Your task to perform on an android device: Open Amazon Image 0: 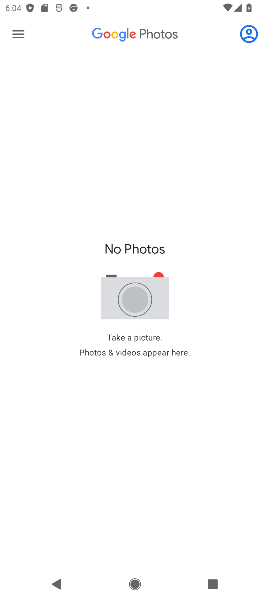
Step 0: press home button
Your task to perform on an android device: Open Amazon Image 1: 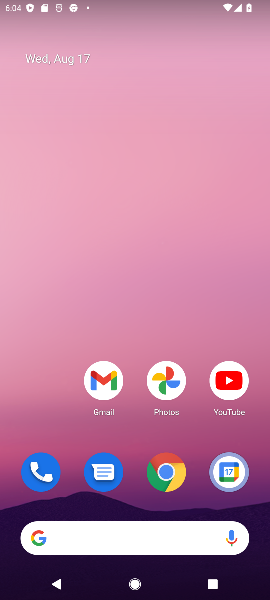
Step 1: click (153, 471)
Your task to perform on an android device: Open Amazon Image 2: 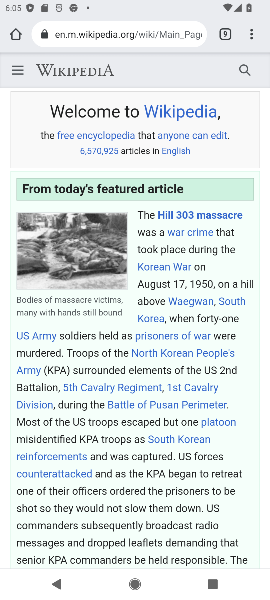
Step 2: click (218, 31)
Your task to perform on an android device: Open Amazon Image 3: 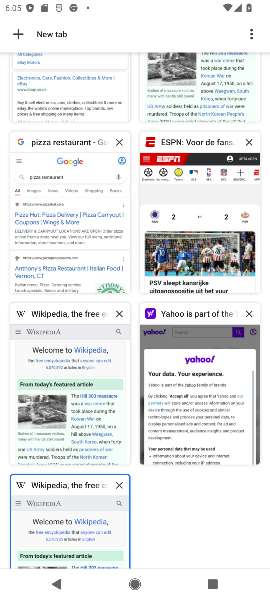
Step 3: click (16, 34)
Your task to perform on an android device: Open Amazon Image 4: 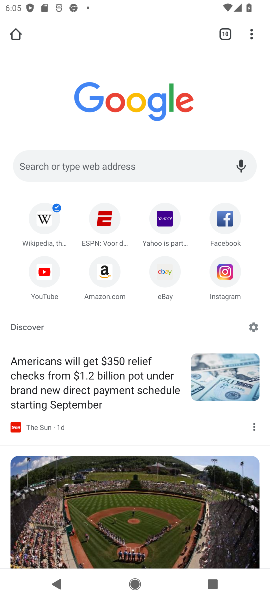
Step 4: click (98, 266)
Your task to perform on an android device: Open Amazon Image 5: 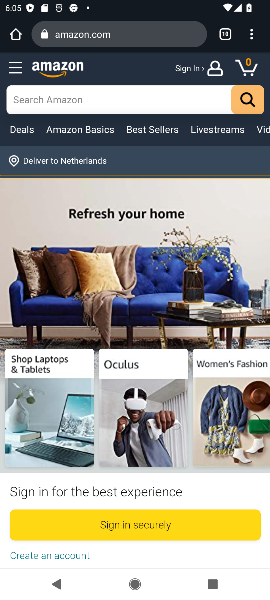
Step 5: task complete